Your task to perform on an android device: Open internet settings Image 0: 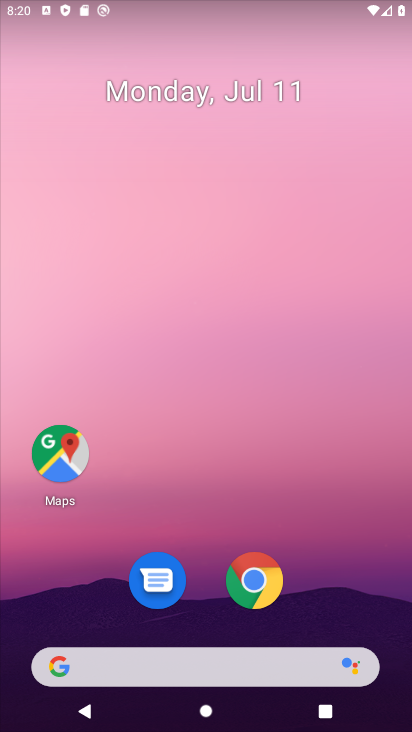
Step 0: drag from (387, 626) to (193, 35)
Your task to perform on an android device: Open internet settings Image 1: 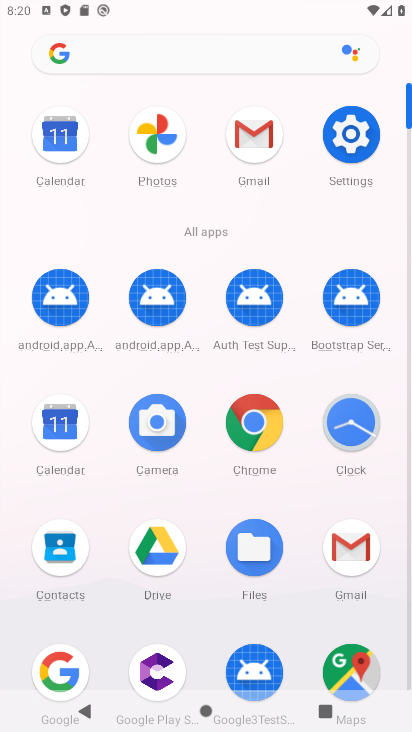
Step 1: click (369, 152)
Your task to perform on an android device: Open internet settings Image 2: 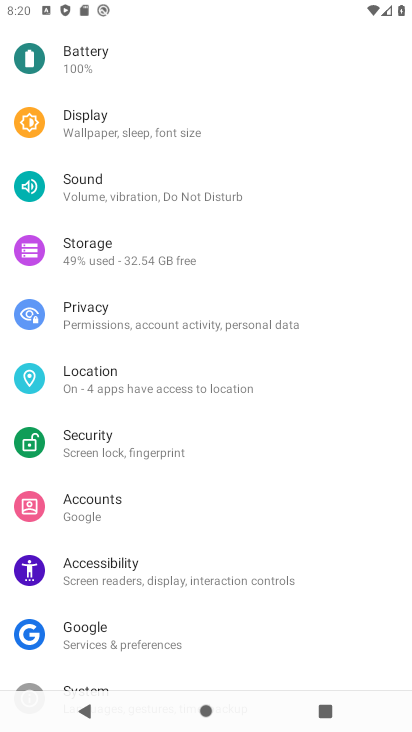
Step 2: drag from (177, 100) to (164, 396)
Your task to perform on an android device: Open internet settings Image 3: 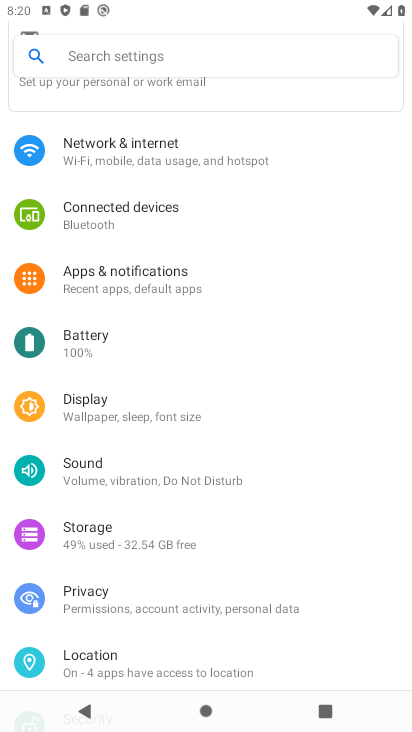
Step 3: drag from (174, 125) to (123, 395)
Your task to perform on an android device: Open internet settings Image 4: 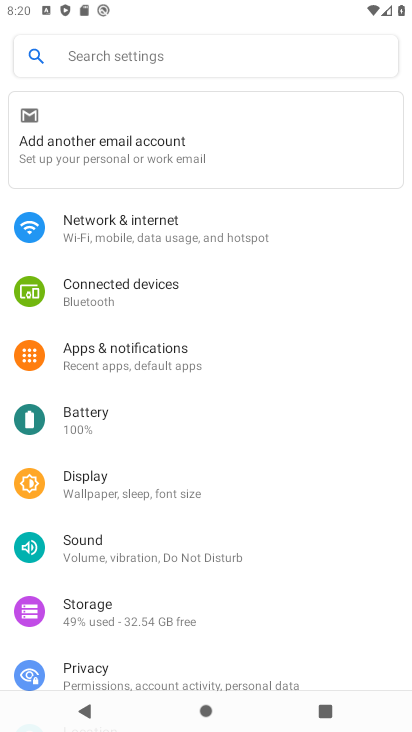
Step 4: click (168, 206)
Your task to perform on an android device: Open internet settings Image 5: 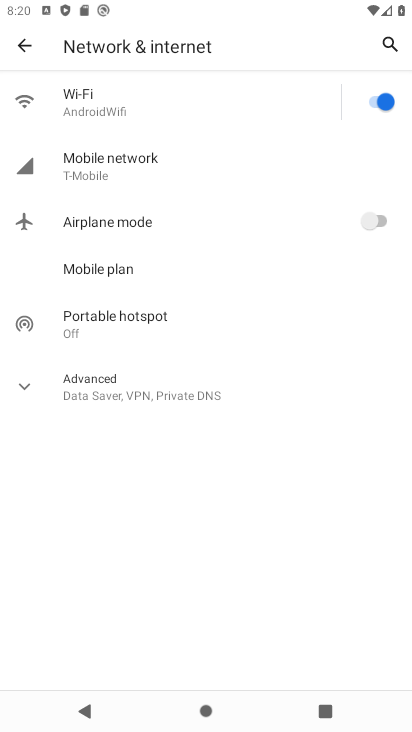
Step 5: task complete